Your task to perform on an android device: turn on showing notifications on the lock screen Image 0: 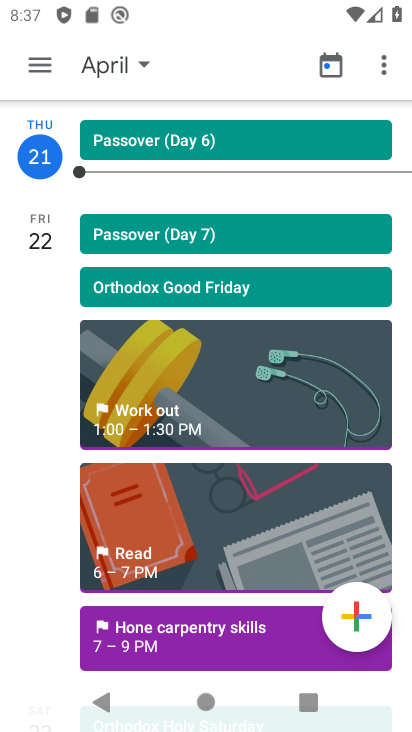
Step 0: press home button
Your task to perform on an android device: turn on showing notifications on the lock screen Image 1: 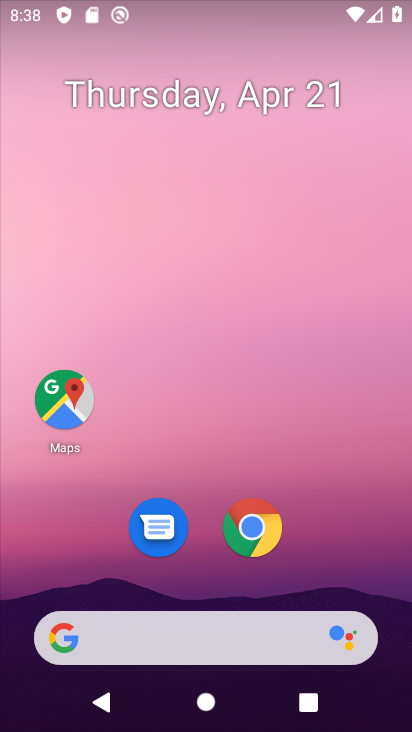
Step 1: drag from (285, 633) to (327, 34)
Your task to perform on an android device: turn on showing notifications on the lock screen Image 2: 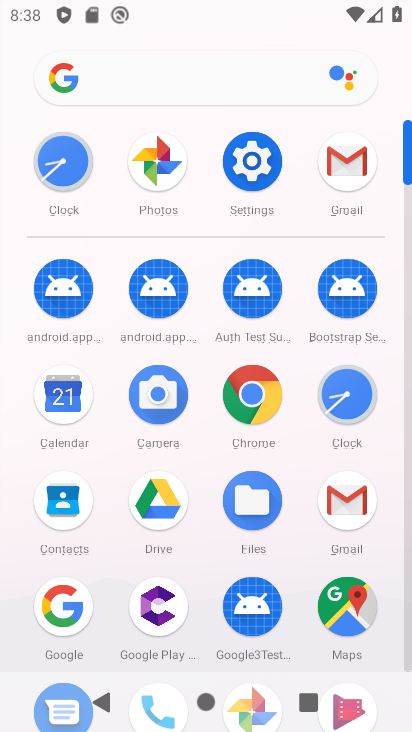
Step 2: click (271, 177)
Your task to perform on an android device: turn on showing notifications on the lock screen Image 3: 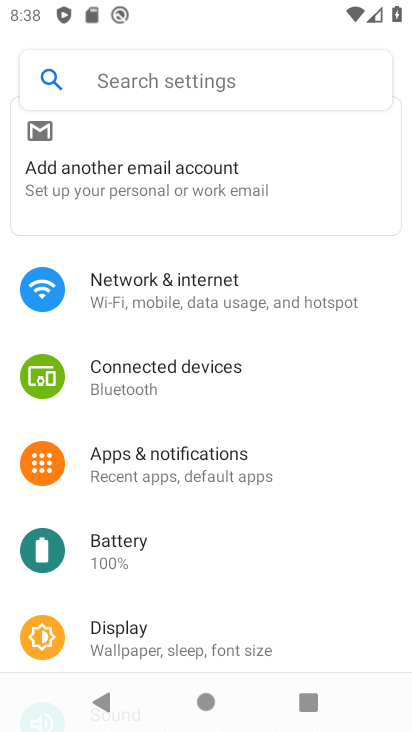
Step 3: click (245, 471)
Your task to perform on an android device: turn on showing notifications on the lock screen Image 4: 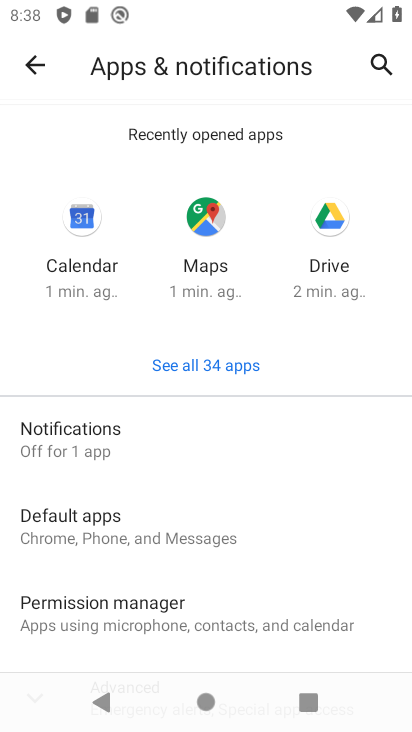
Step 4: click (257, 444)
Your task to perform on an android device: turn on showing notifications on the lock screen Image 5: 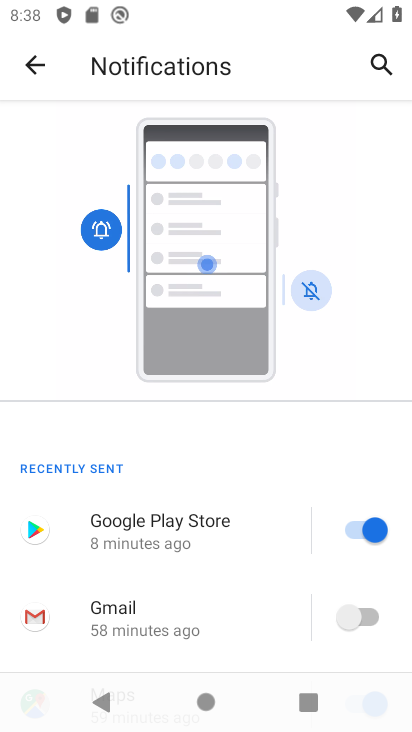
Step 5: drag from (259, 557) to (317, 283)
Your task to perform on an android device: turn on showing notifications on the lock screen Image 6: 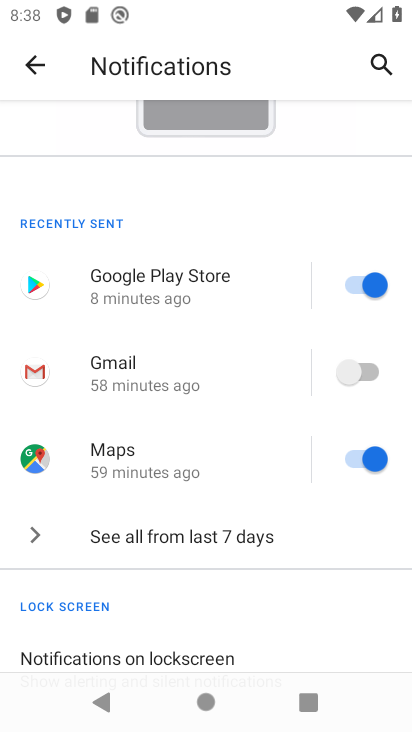
Step 6: drag from (211, 486) to (253, 201)
Your task to perform on an android device: turn on showing notifications on the lock screen Image 7: 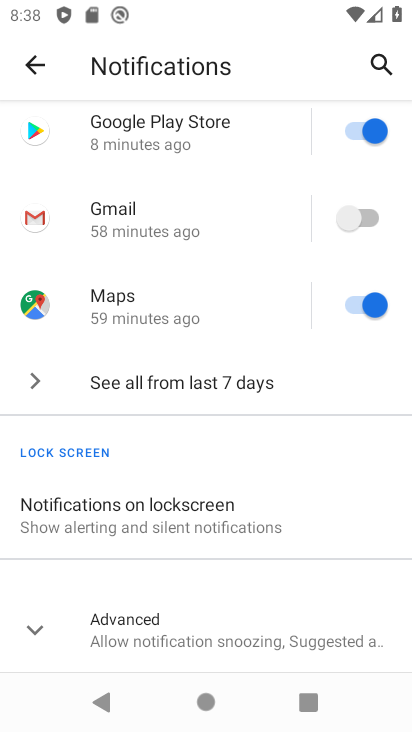
Step 7: click (220, 513)
Your task to perform on an android device: turn on showing notifications on the lock screen Image 8: 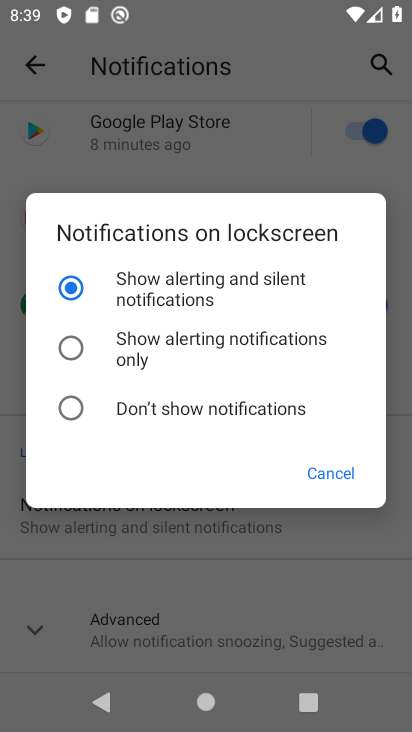
Step 8: task complete